Your task to perform on an android device: open sync settings in chrome Image 0: 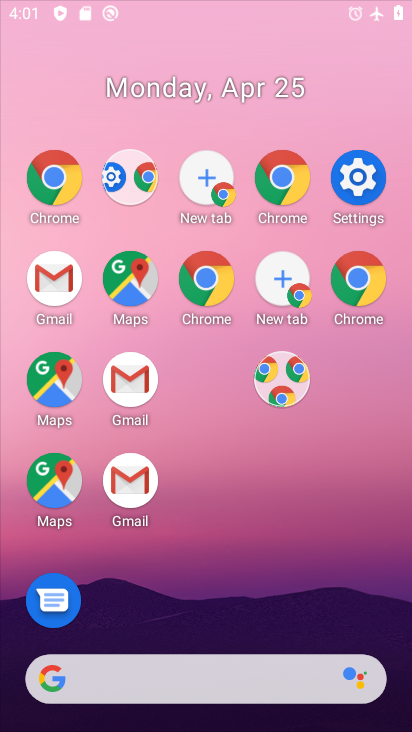
Step 0: drag from (326, 719) to (262, 135)
Your task to perform on an android device: open sync settings in chrome Image 1: 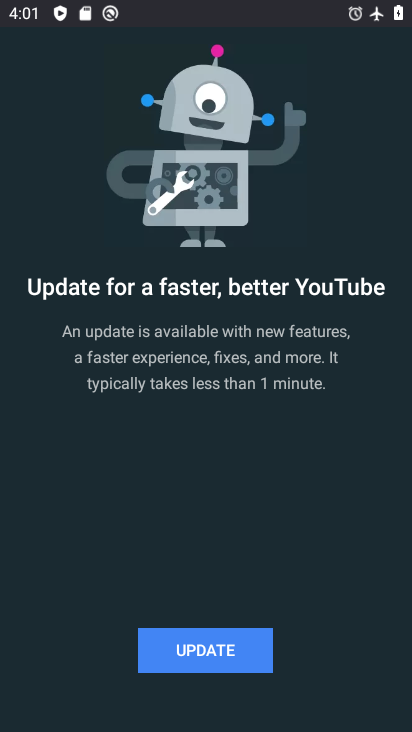
Step 1: press home button
Your task to perform on an android device: open sync settings in chrome Image 2: 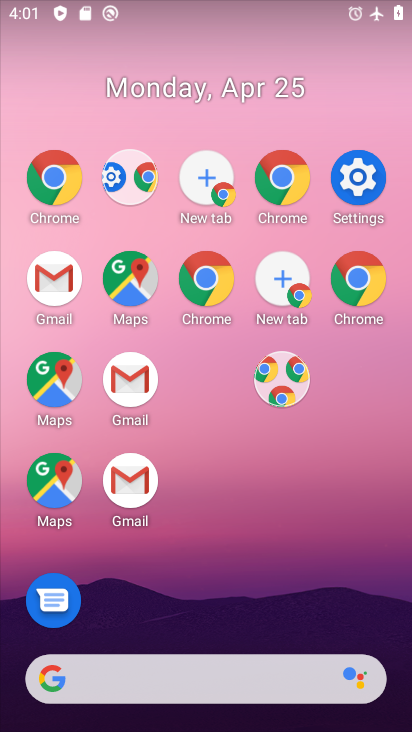
Step 2: drag from (274, 480) to (197, 122)
Your task to perform on an android device: open sync settings in chrome Image 3: 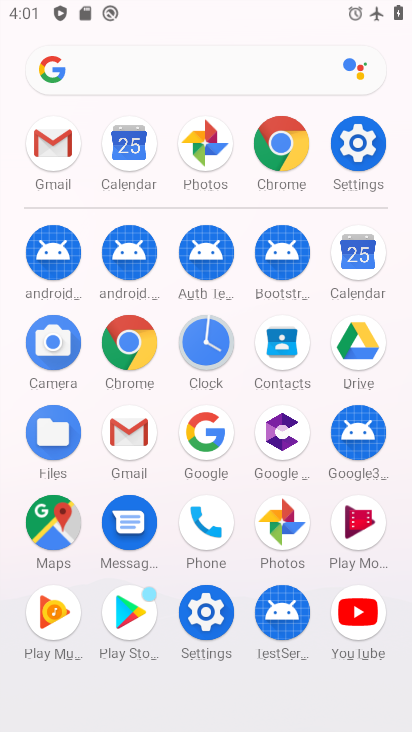
Step 3: click (277, 137)
Your task to perform on an android device: open sync settings in chrome Image 4: 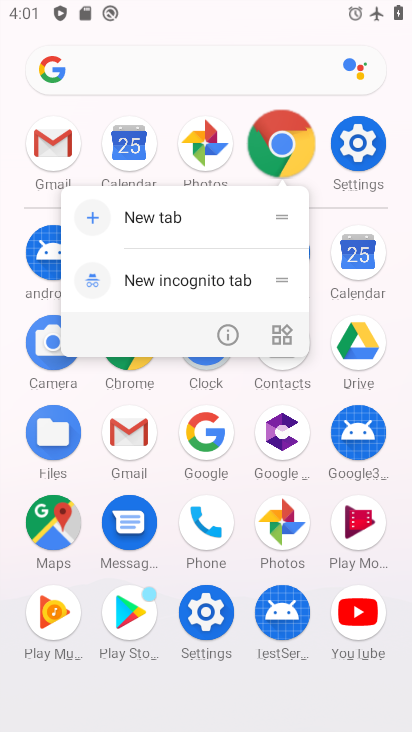
Step 4: click (277, 137)
Your task to perform on an android device: open sync settings in chrome Image 5: 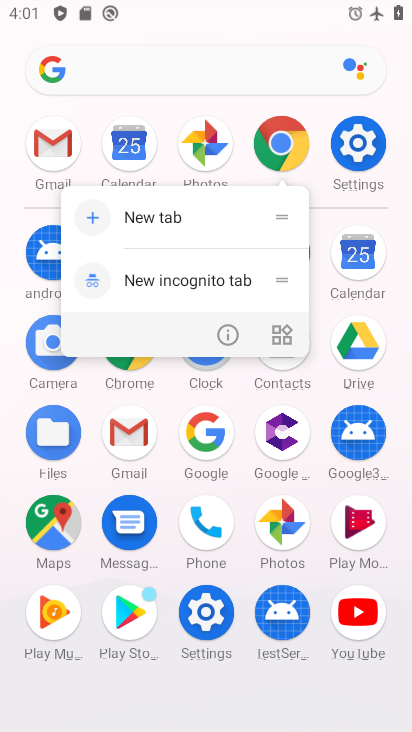
Step 5: click (277, 137)
Your task to perform on an android device: open sync settings in chrome Image 6: 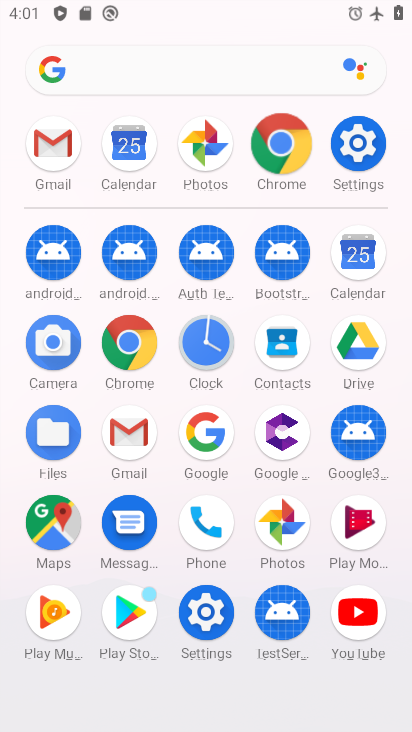
Step 6: click (277, 137)
Your task to perform on an android device: open sync settings in chrome Image 7: 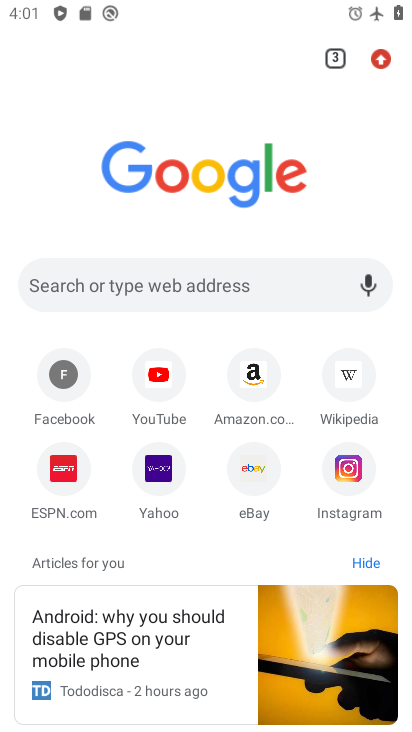
Step 7: drag from (379, 55) to (175, 547)
Your task to perform on an android device: open sync settings in chrome Image 8: 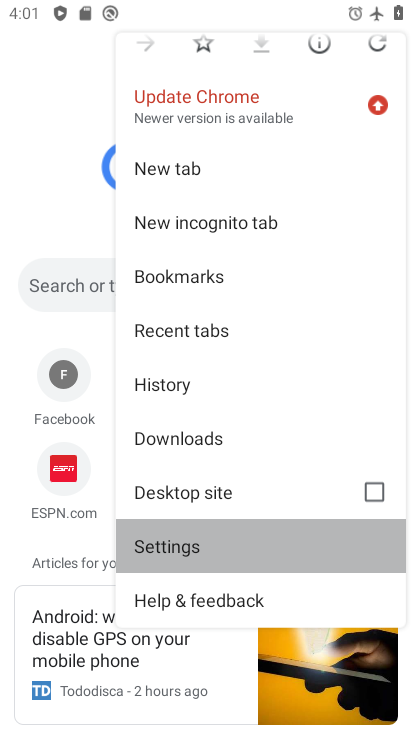
Step 8: click (175, 547)
Your task to perform on an android device: open sync settings in chrome Image 9: 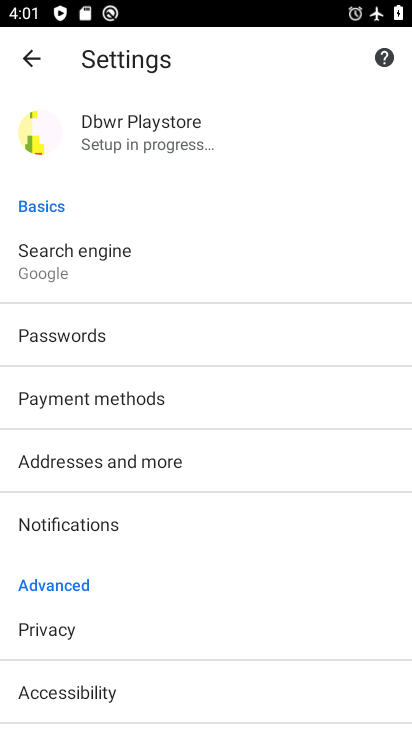
Step 9: drag from (144, 101) to (143, 150)
Your task to perform on an android device: open sync settings in chrome Image 10: 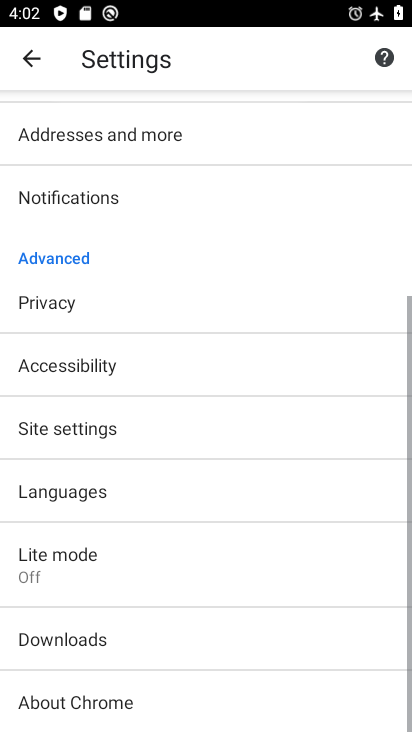
Step 10: drag from (126, 529) to (73, 188)
Your task to perform on an android device: open sync settings in chrome Image 11: 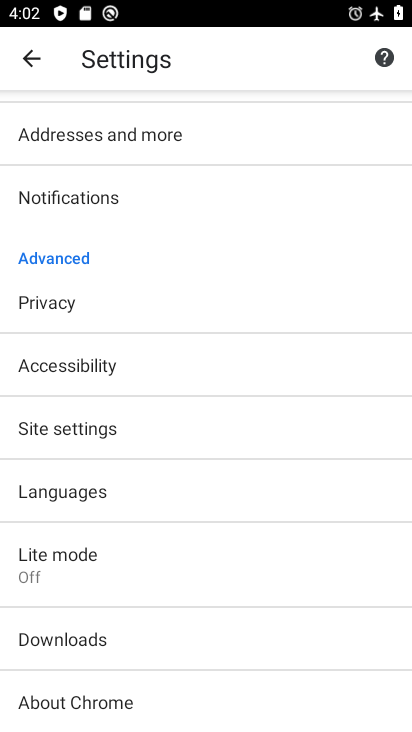
Step 11: click (46, 425)
Your task to perform on an android device: open sync settings in chrome Image 12: 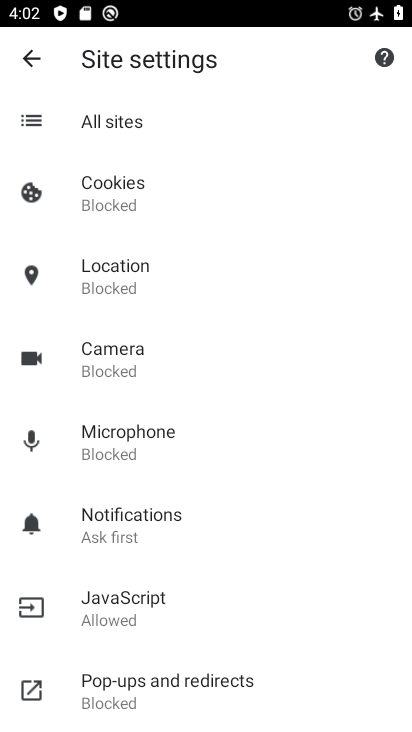
Step 12: drag from (221, 557) to (158, 135)
Your task to perform on an android device: open sync settings in chrome Image 13: 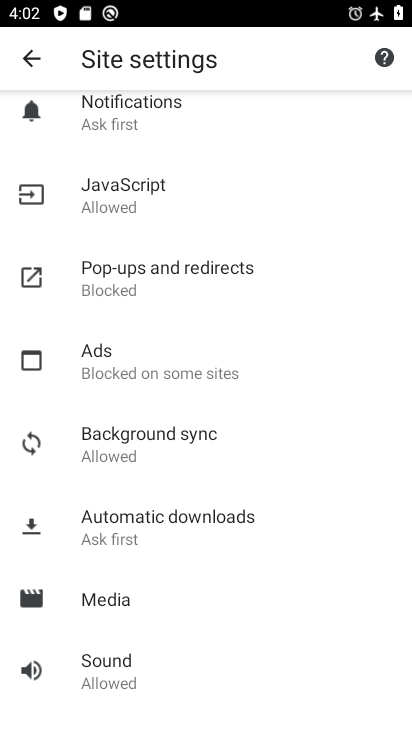
Step 13: click (128, 439)
Your task to perform on an android device: open sync settings in chrome Image 14: 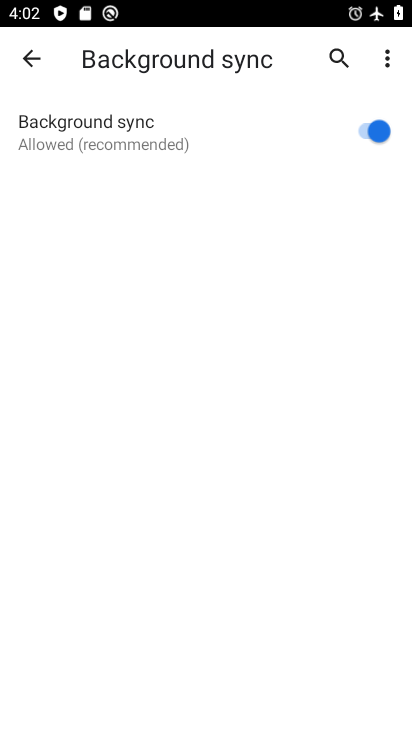
Step 14: task complete